Your task to perform on an android device: Show the shopping cart on ebay.com. Search for "asus zenbook" on ebay.com, select the first entry, and add it to the cart. Image 0: 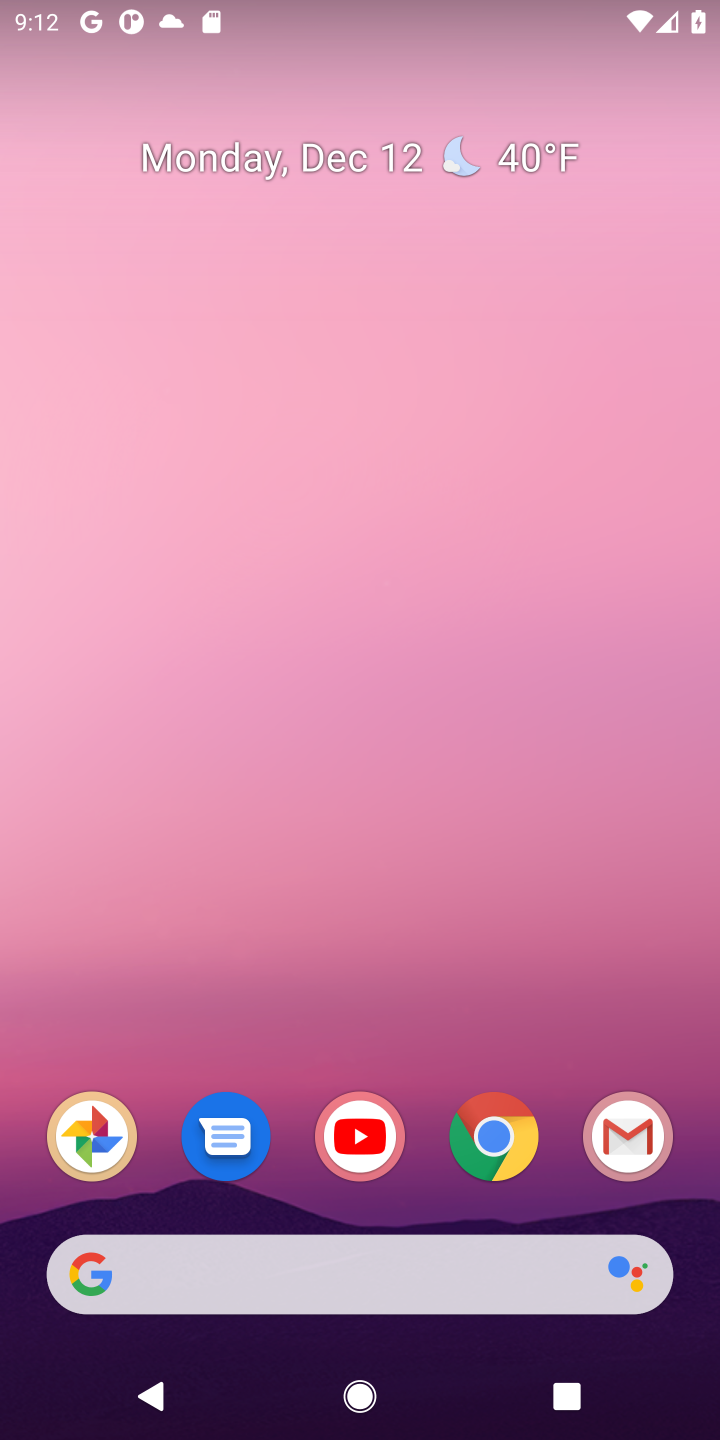
Step 0: click (500, 1133)
Your task to perform on an android device: Show the shopping cart on ebay.com. Search for "asus zenbook" on ebay.com, select the first entry, and add it to the cart. Image 1: 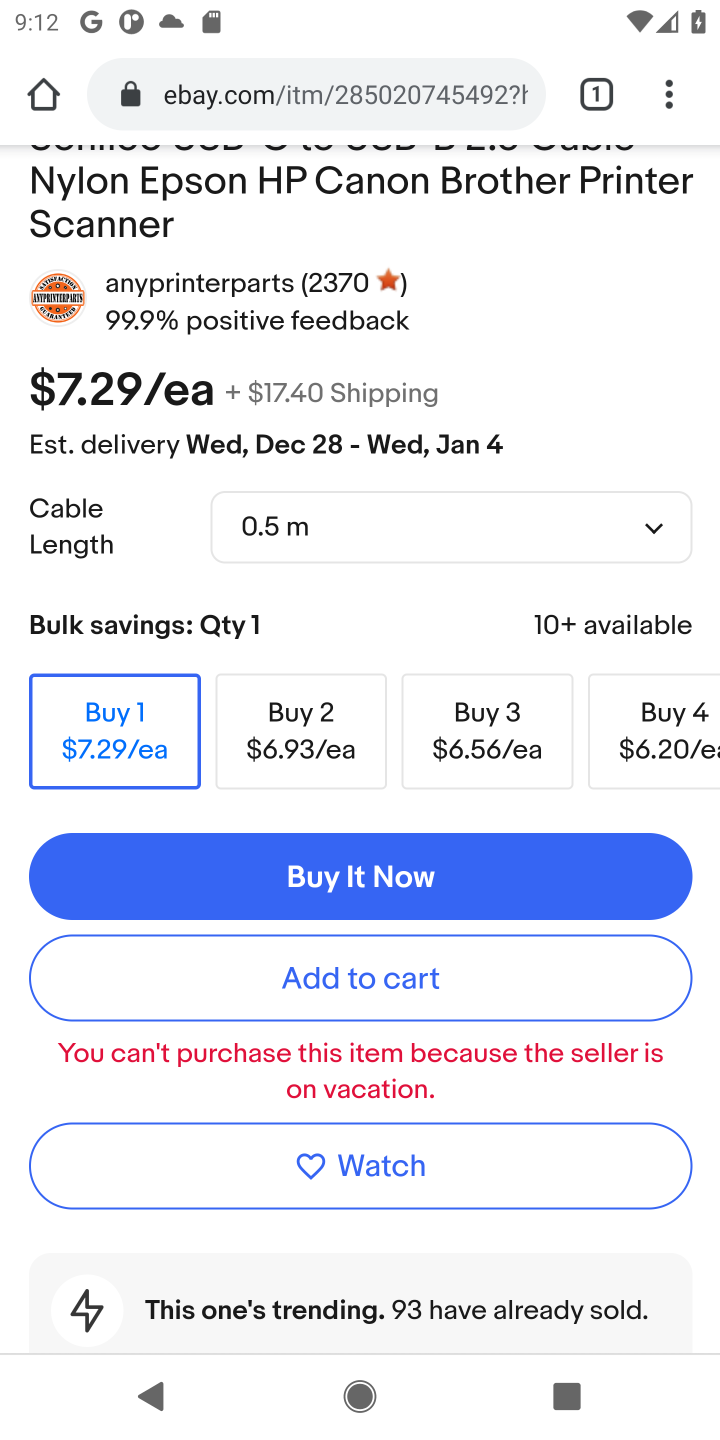
Step 1: drag from (385, 444) to (234, 1356)
Your task to perform on an android device: Show the shopping cart on ebay.com. Search for "asus zenbook" on ebay.com, select the first entry, and add it to the cart. Image 2: 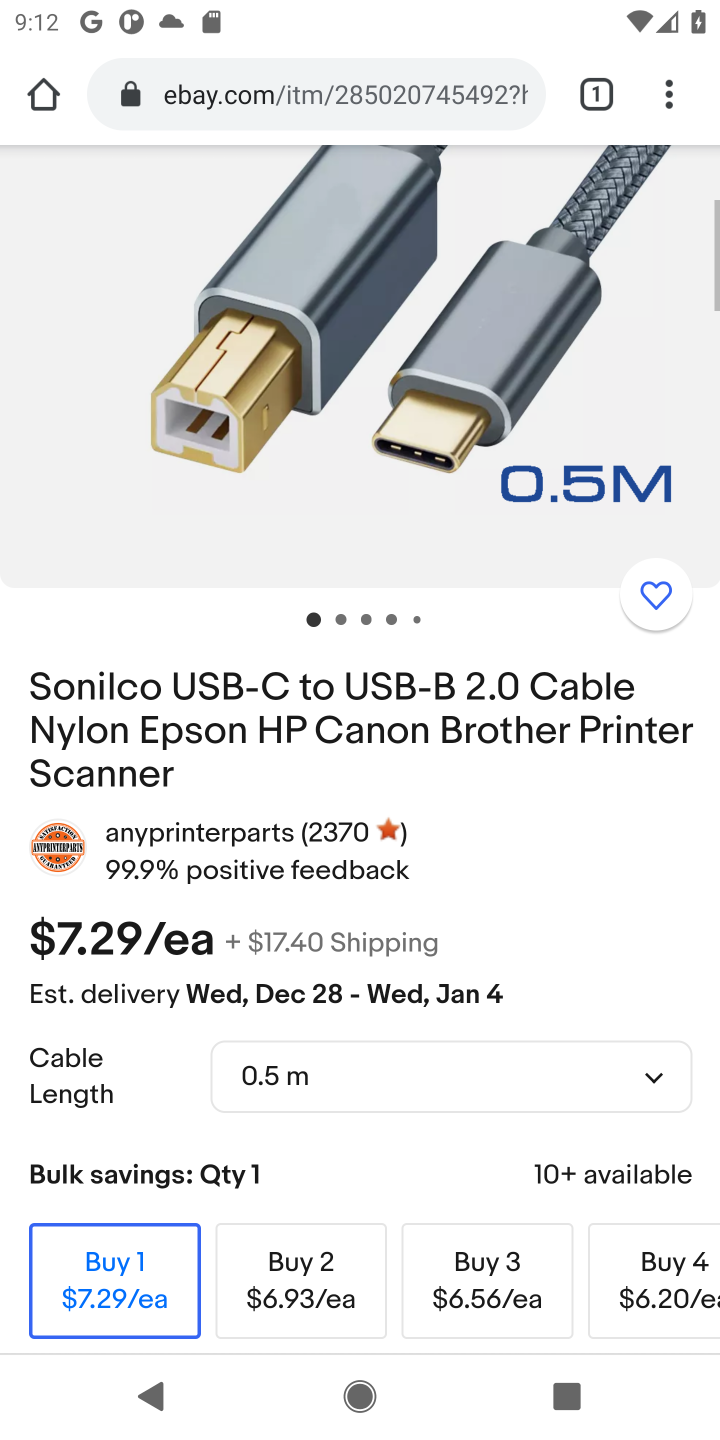
Step 2: drag from (543, 252) to (476, 1002)
Your task to perform on an android device: Show the shopping cart on ebay.com. Search for "asus zenbook" on ebay.com, select the first entry, and add it to the cart. Image 3: 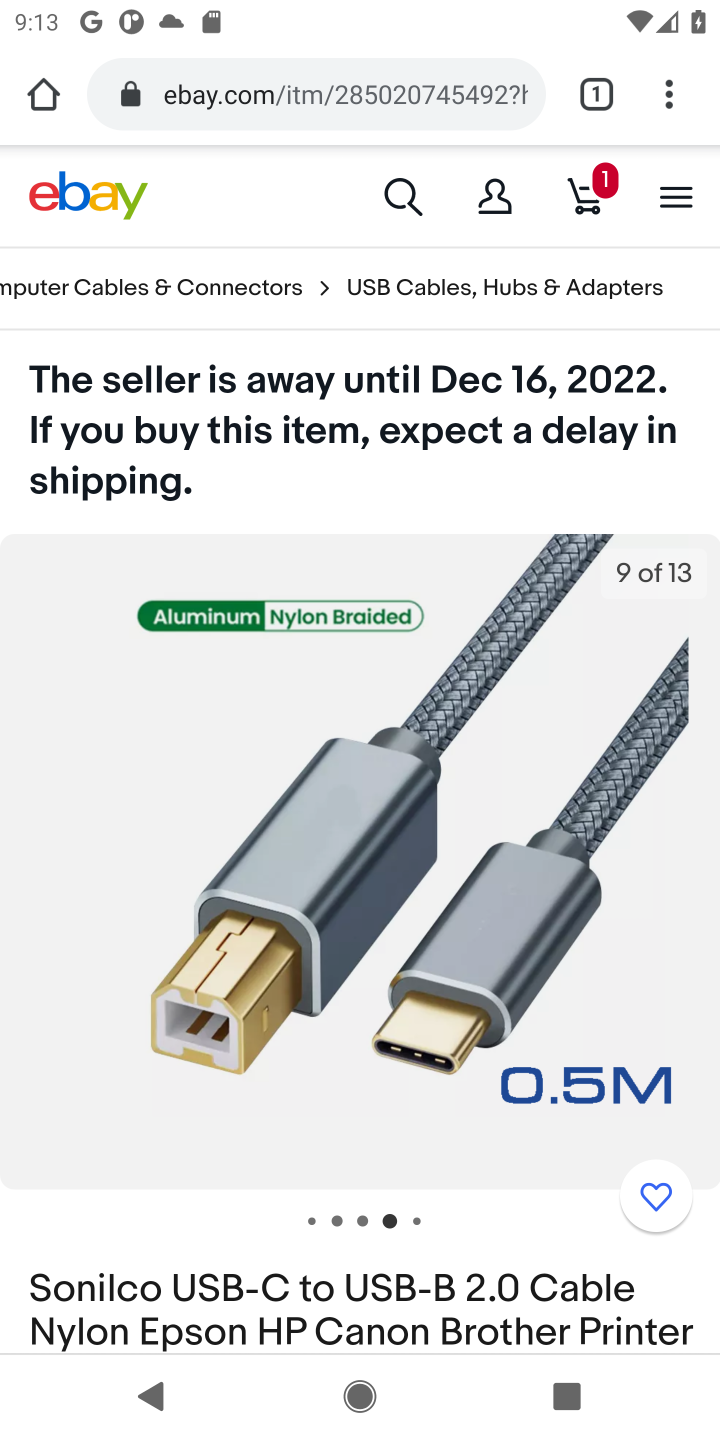
Step 3: click (586, 184)
Your task to perform on an android device: Show the shopping cart on ebay.com. Search for "asus zenbook" on ebay.com, select the first entry, and add it to the cart. Image 4: 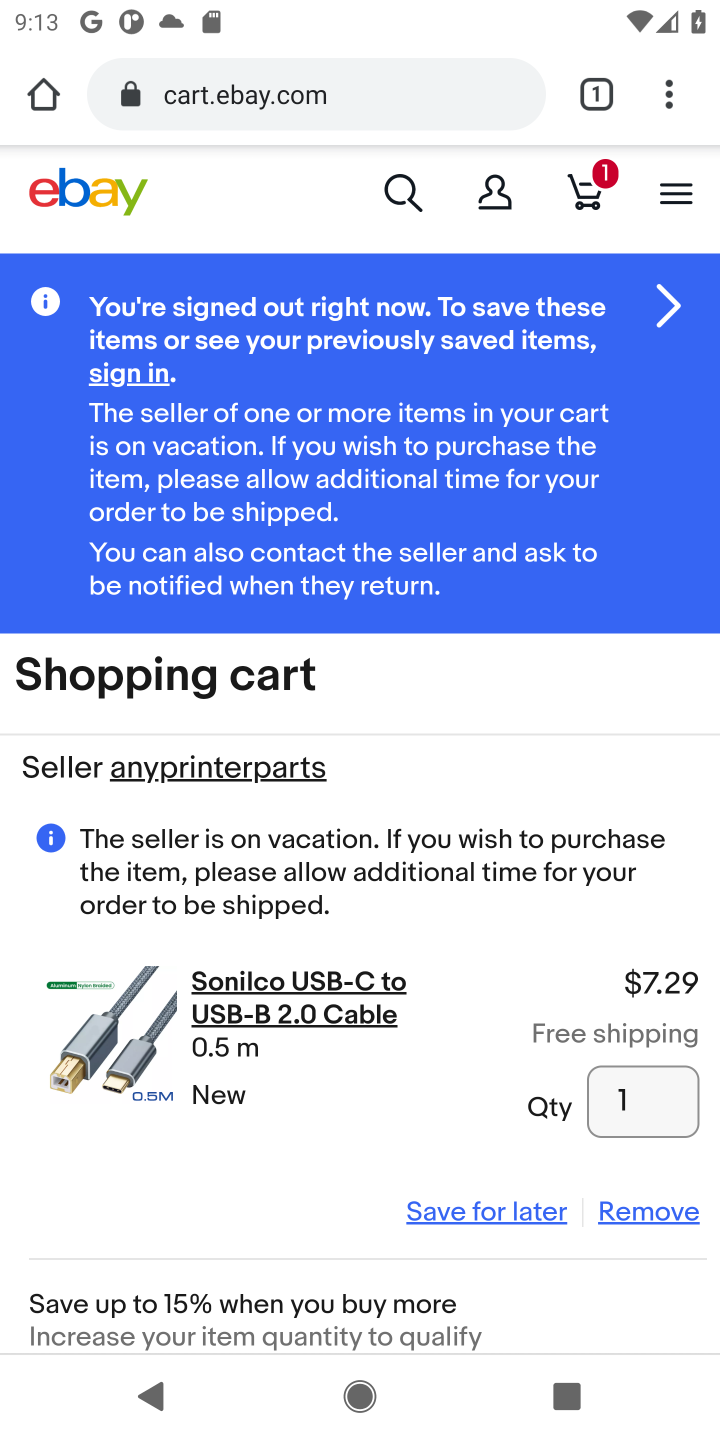
Step 4: click (397, 185)
Your task to perform on an android device: Show the shopping cart on ebay.com. Search for "asus zenbook" on ebay.com, select the first entry, and add it to the cart. Image 5: 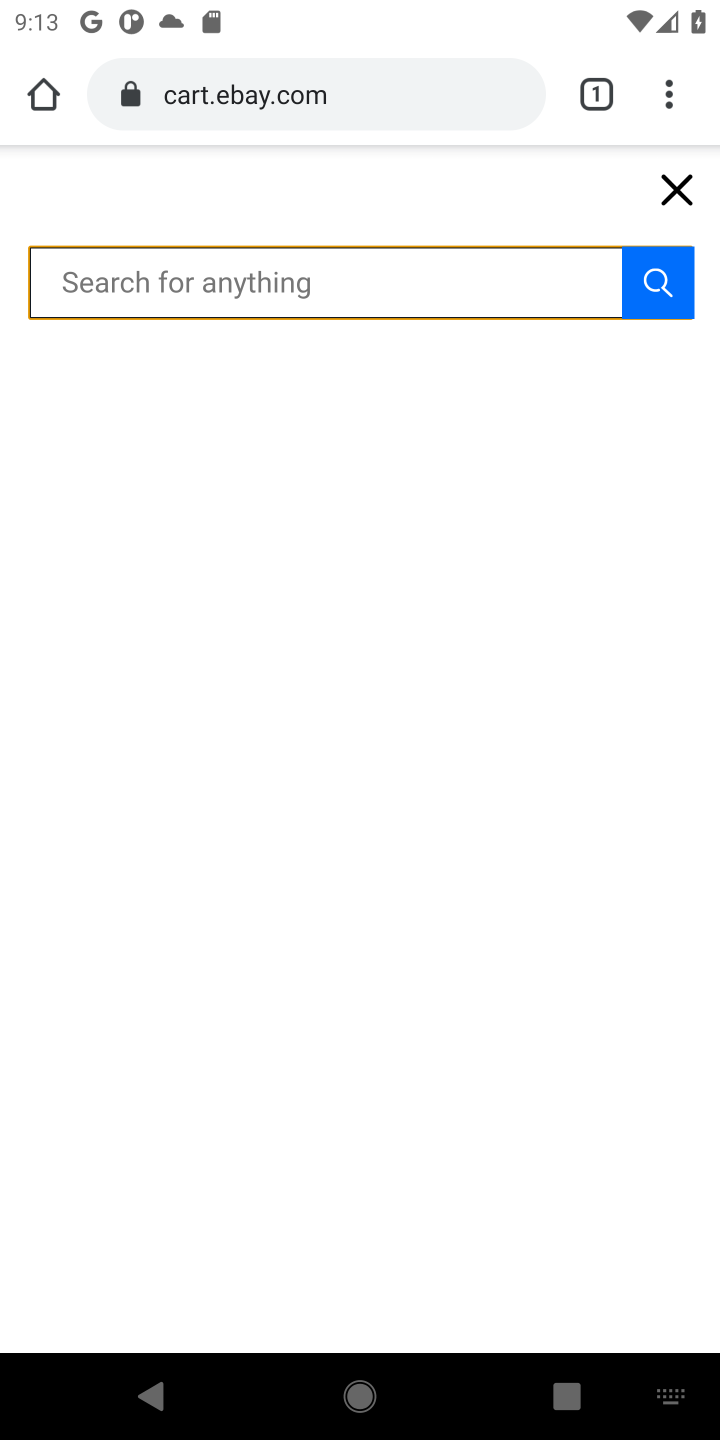
Step 5: type "asus zenbook"
Your task to perform on an android device: Show the shopping cart on ebay.com. Search for "asus zenbook" on ebay.com, select the first entry, and add it to the cart. Image 6: 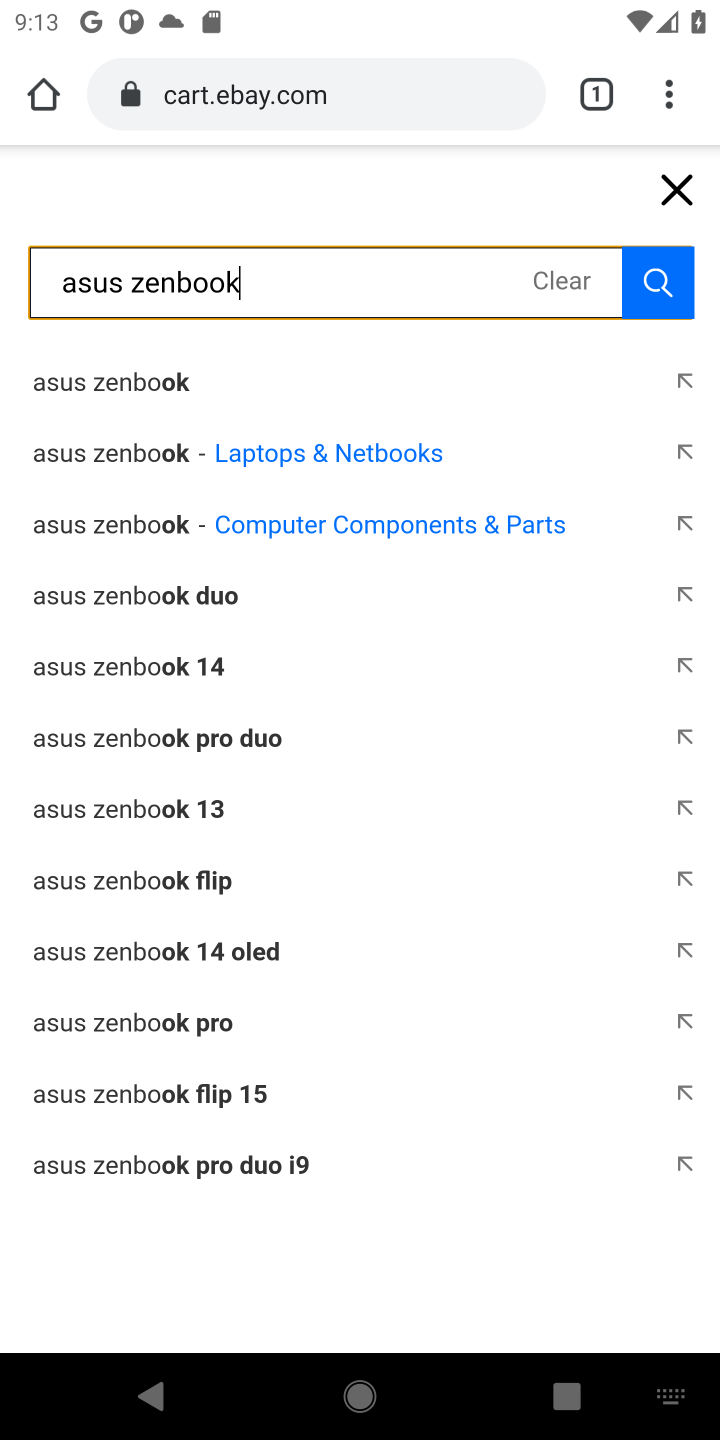
Step 6: click (165, 393)
Your task to perform on an android device: Show the shopping cart on ebay.com. Search for "asus zenbook" on ebay.com, select the first entry, and add it to the cart. Image 7: 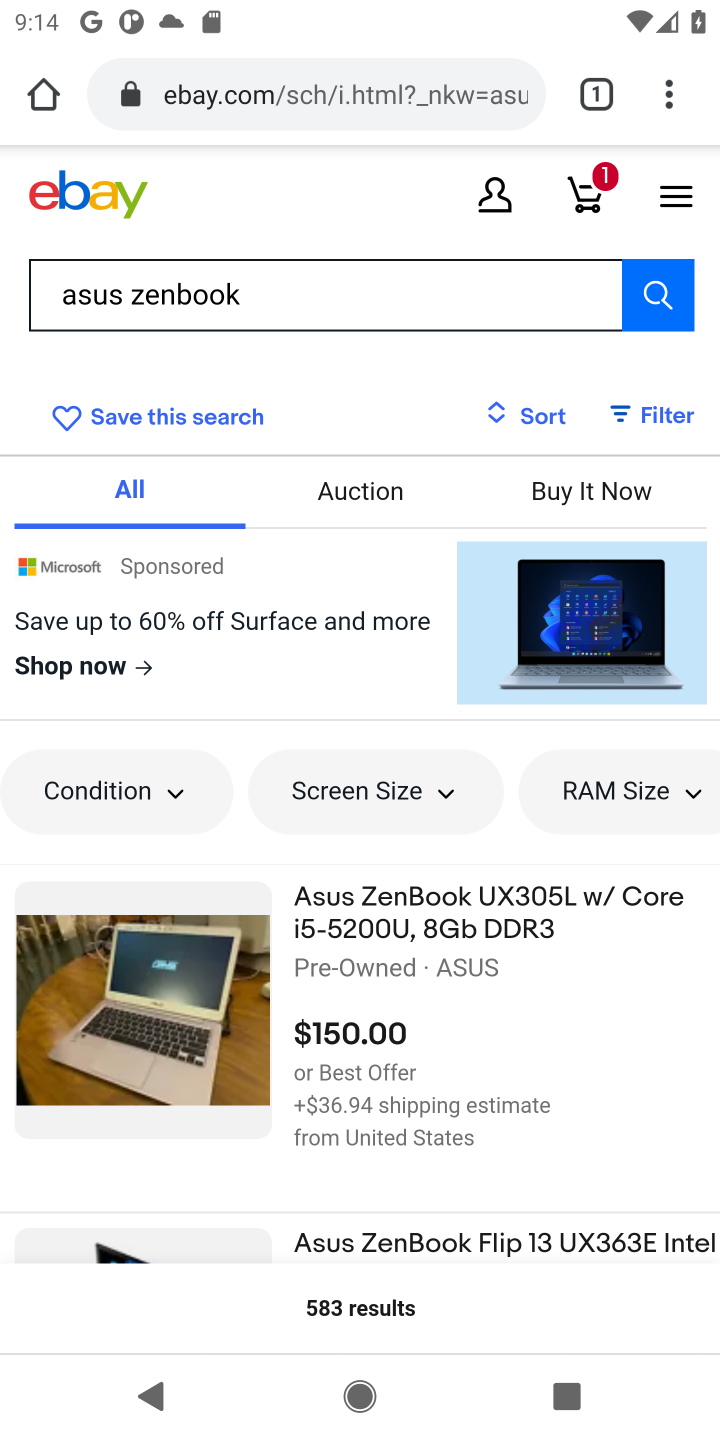
Step 7: drag from (296, 893) to (296, 324)
Your task to perform on an android device: Show the shopping cart on ebay.com. Search for "asus zenbook" on ebay.com, select the first entry, and add it to the cart. Image 8: 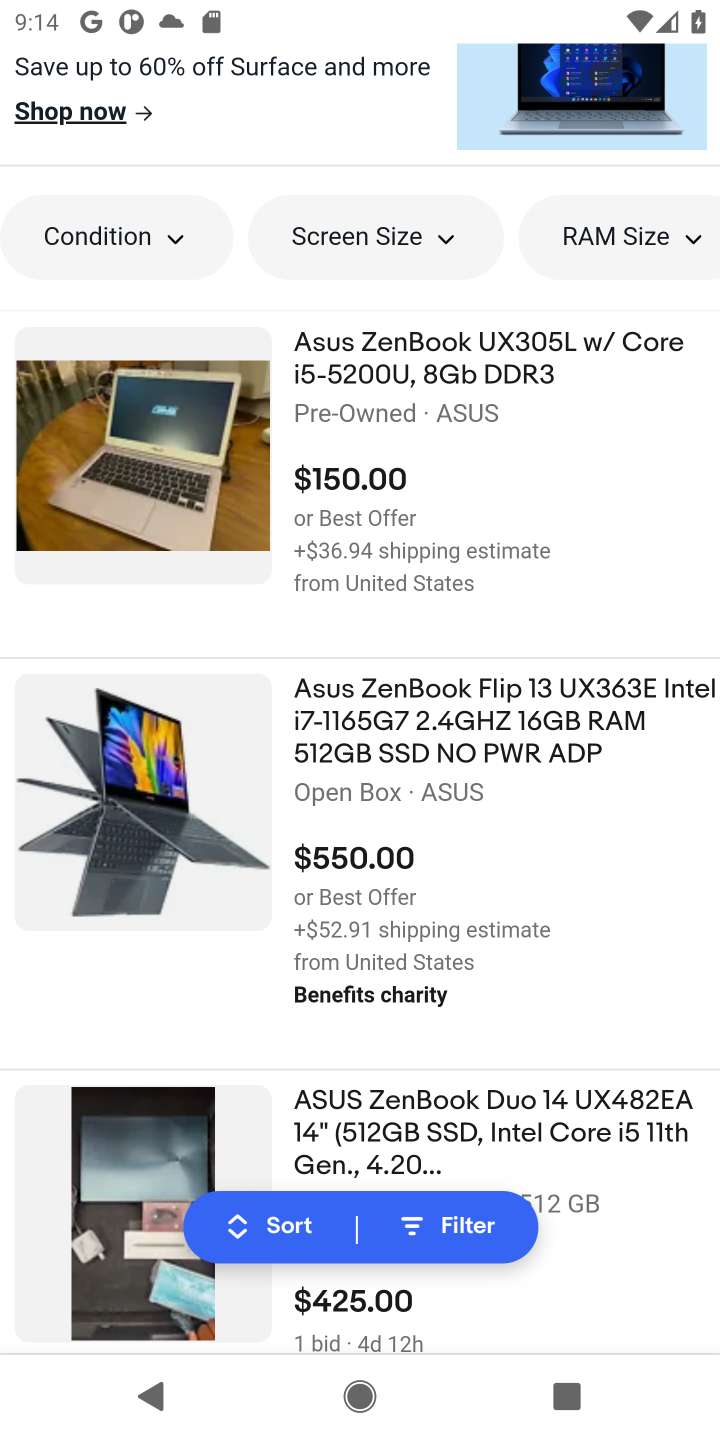
Step 8: click (335, 406)
Your task to perform on an android device: Show the shopping cart on ebay.com. Search for "asus zenbook" on ebay.com, select the first entry, and add it to the cart. Image 9: 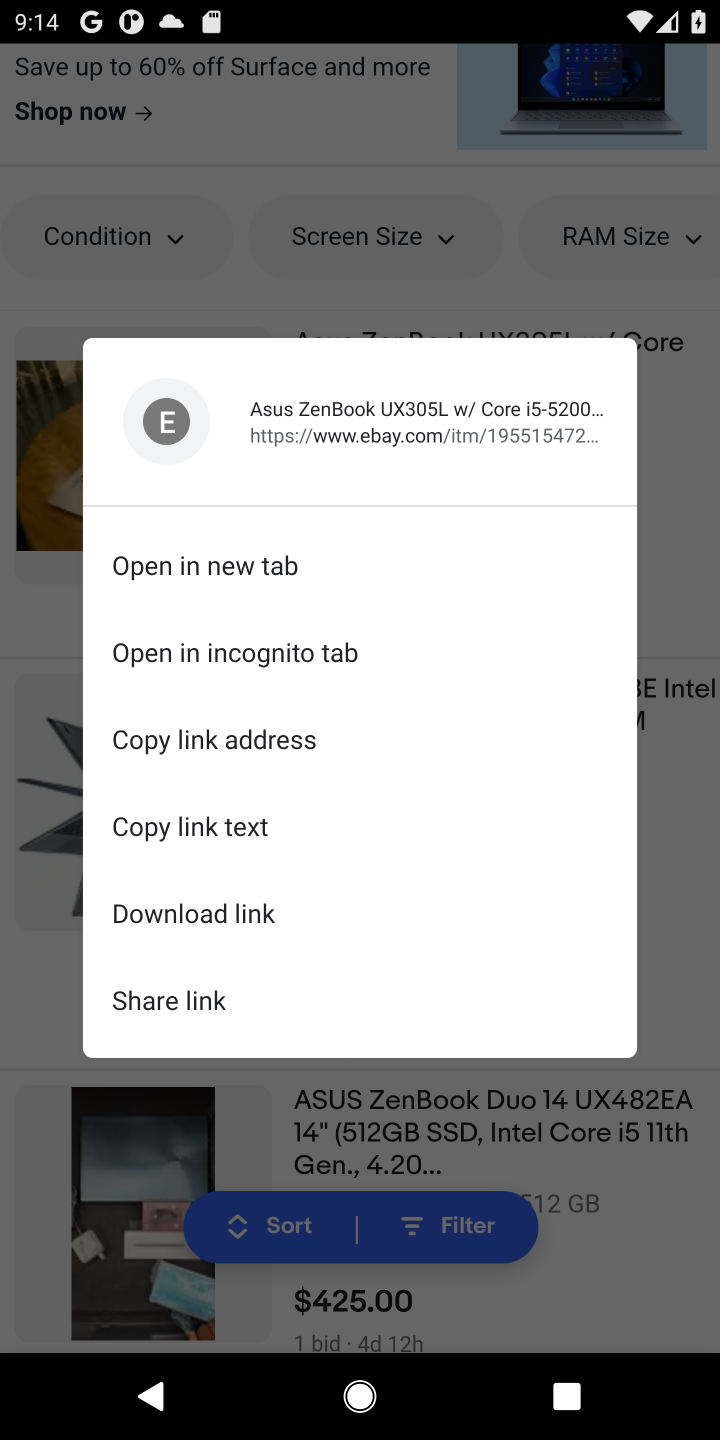
Step 9: click (660, 444)
Your task to perform on an android device: Show the shopping cart on ebay.com. Search for "asus zenbook" on ebay.com, select the first entry, and add it to the cart. Image 10: 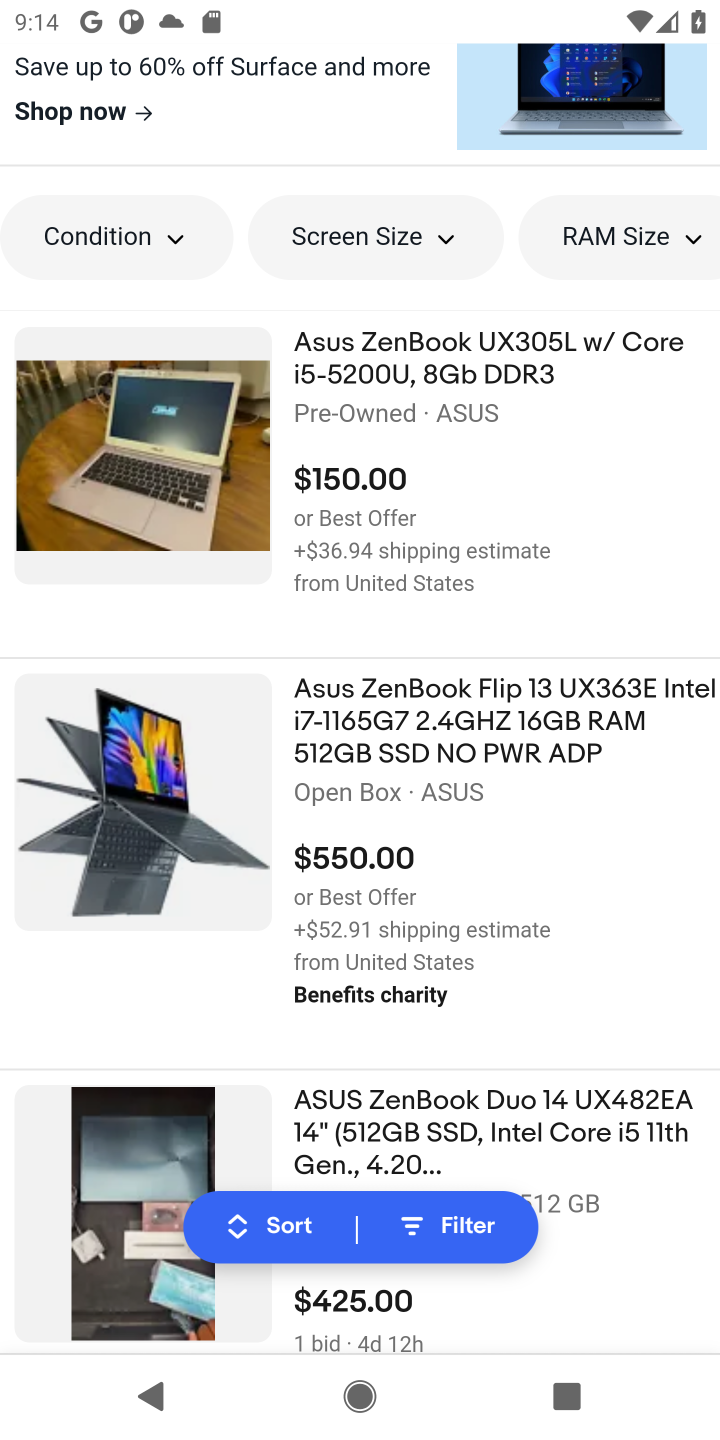
Step 10: click (366, 437)
Your task to perform on an android device: Show the shopping cart on ebay.com. Search for "asus zenbook" on ebay.com, select the first entry, and add it to the cart. Image 11: 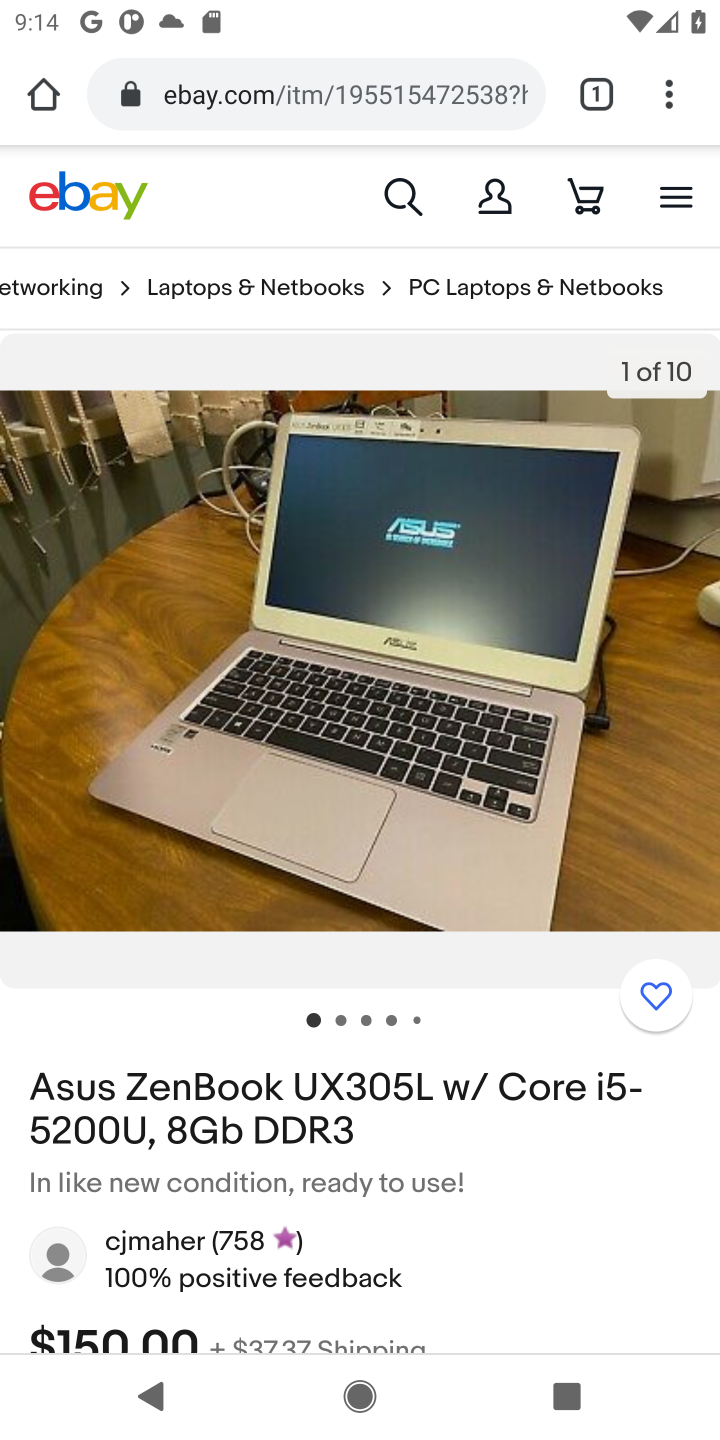
Step 11: drag from (332, 976) to (374, 384)
Your task to perform on an android device: Show the shopping cart on ebay.com. Search for "asus zenbook" on ebay.com, select the first entry, and add it to the cart. Image 12: 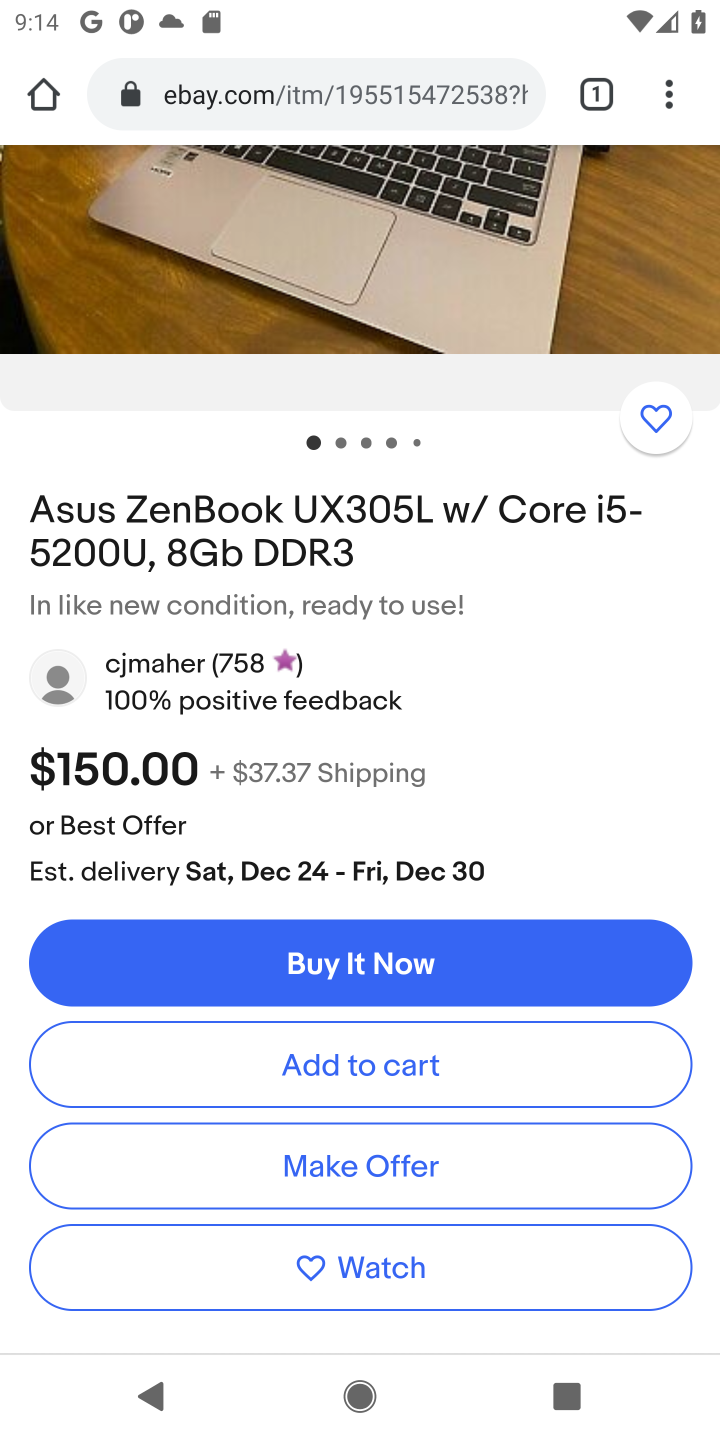
Step 12: click (313, 1056)
Your task to perform on an android device: Show the shopping cart on ebay.com. Search for "asus zenbook" on ebay.com, select the first entry, and add it to the cart. Image 13: 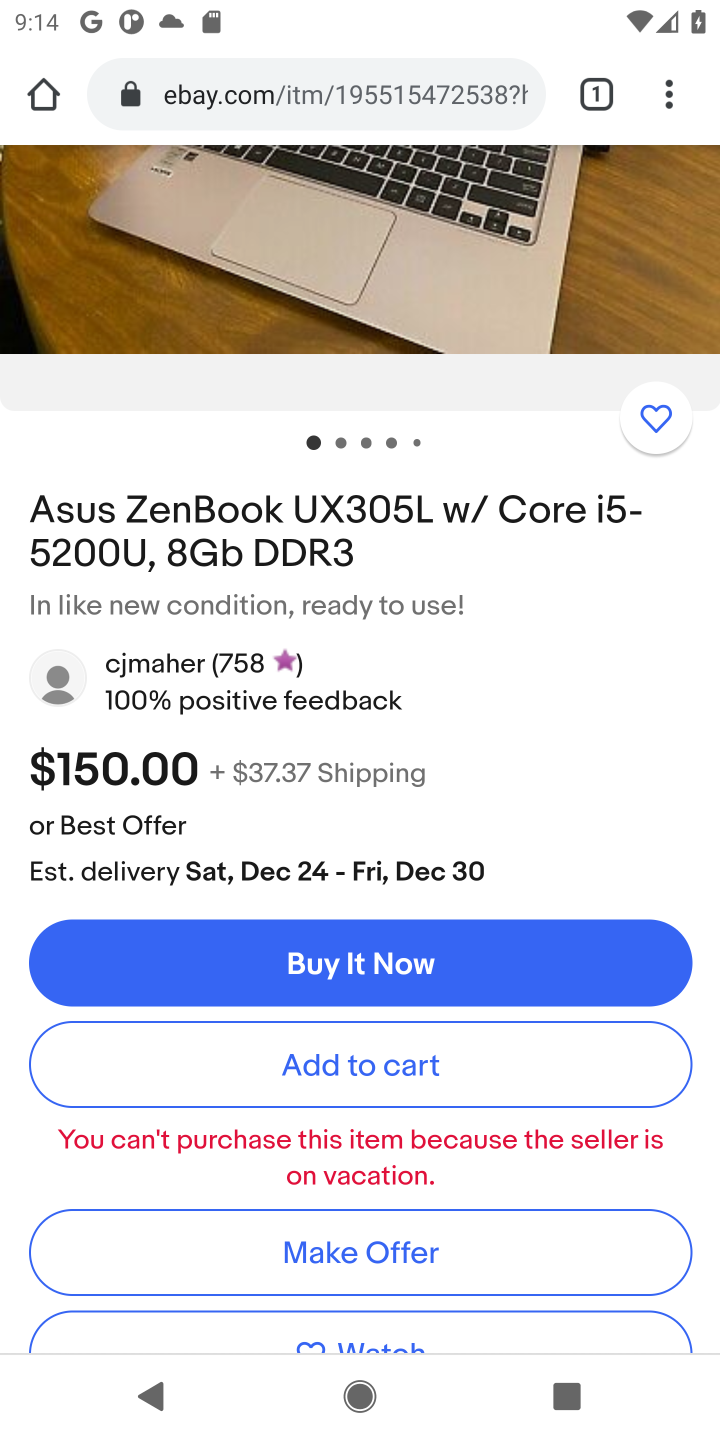
Step 13: task complete